Your task to perform on an android device: turn off location Image 0: 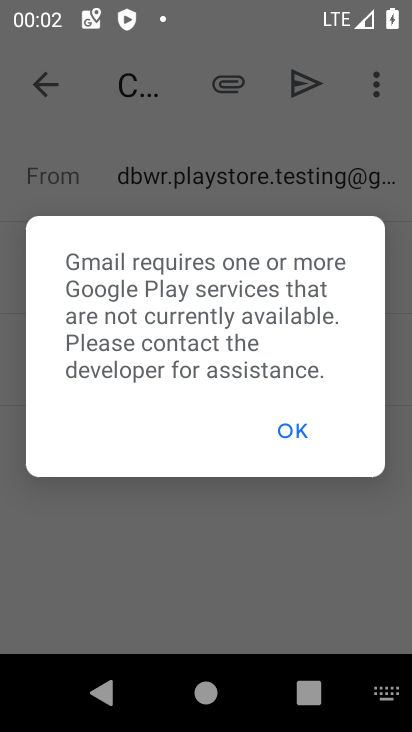
Step 0: press home button
Your task to perform on an android device: turn off location Image 1: 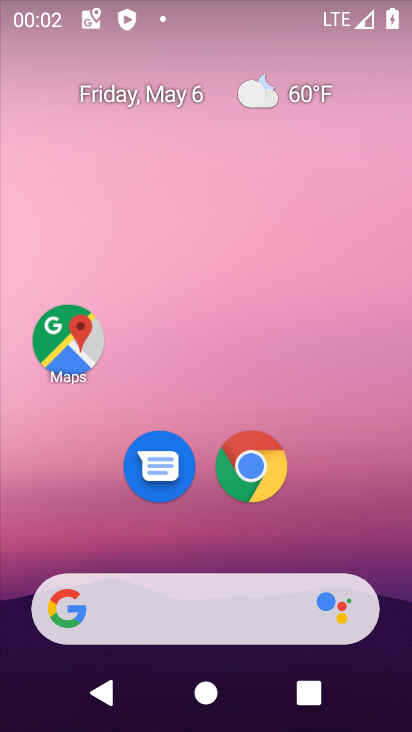
Step 1: drag from (260, 551) to (254, 163)
Your task to perform on an android device: turn off location Image 2: 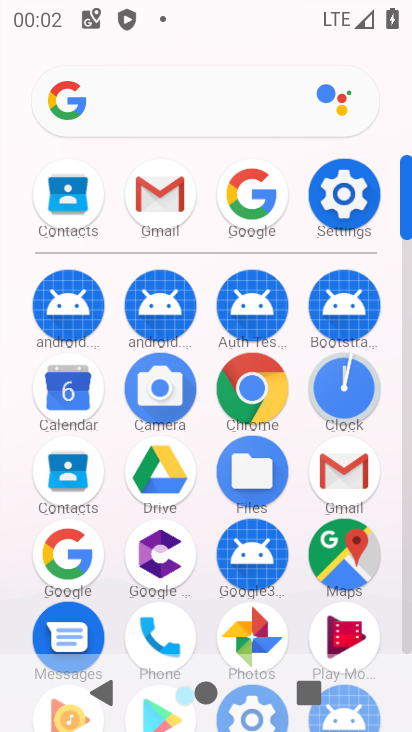
Step 2: click (353, 187)
Your task to perform on an android device: turn off location Image 3: 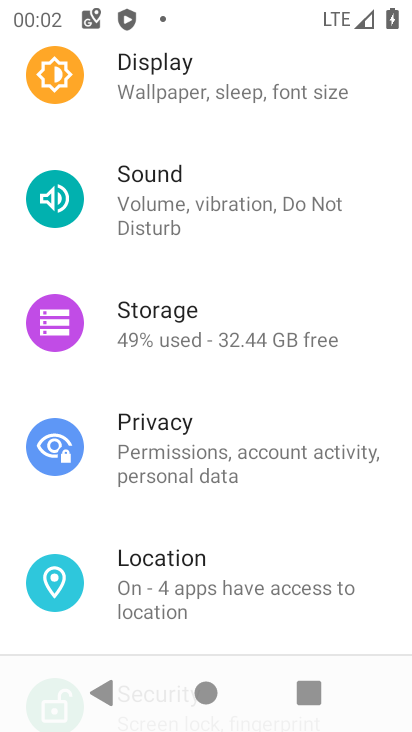
Step 3: click (172, 583)
Your task to perform on an android device: turn off location Image 4: 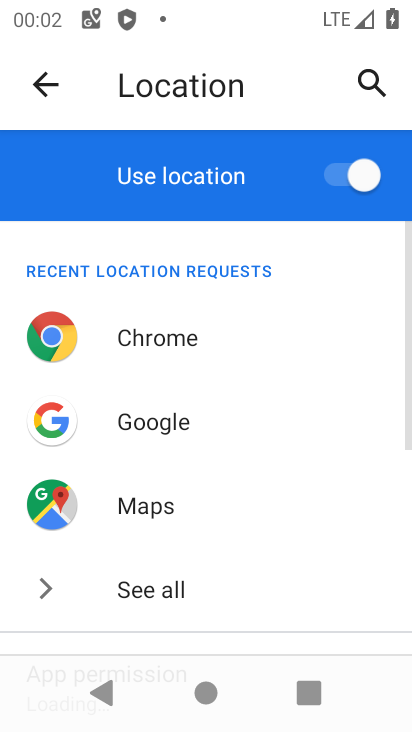
Step 4: click (340, 168)
Your task to perform on an android device: turn off location Image 5: 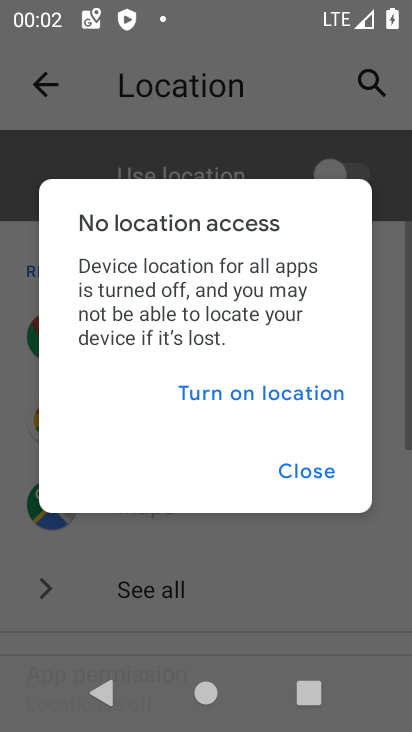
Step 5: task complete